Your task to perform on an android device: check the backup settings in the google photos Image 0: 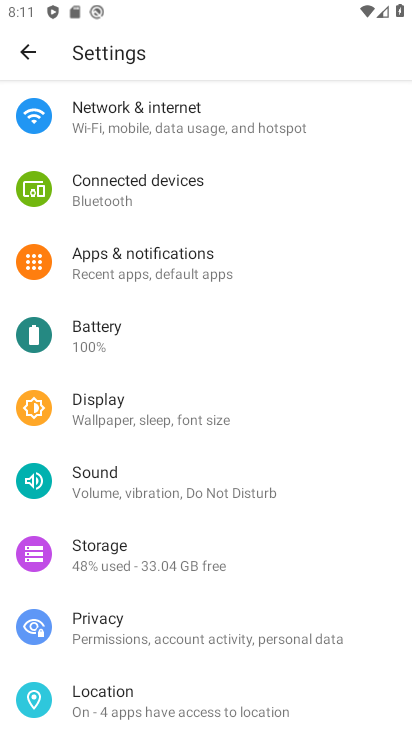
Step 0: press home button
Your task to perform on an android device: check the backup settings in the google photos Image 1: 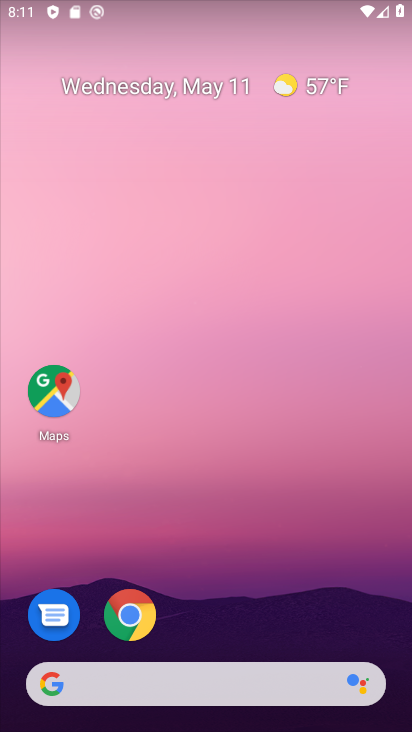
Step 1: drag from (342, 551) to (336, 78)
Your task to perform on an android device: check the backup settings in the google photos Image 2: 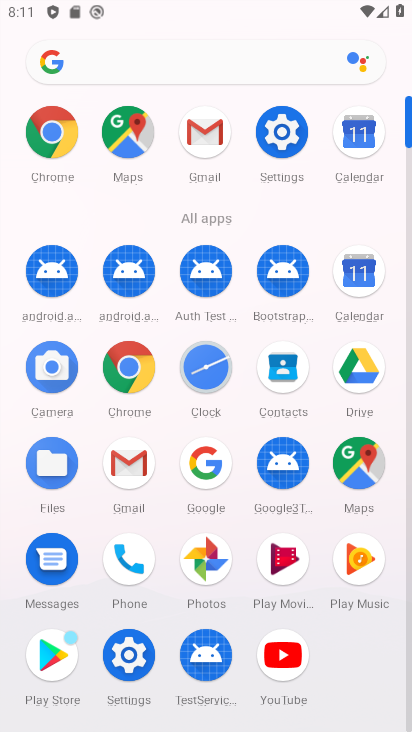
Step 2: click (186, 568)
Your task to perform on an android device: check the backup settings in the google photos Image 3: 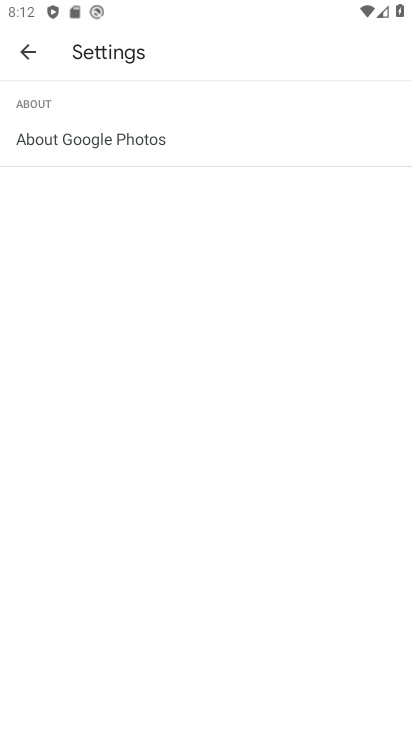
Step 3: press back button
Your task to perform on an android device: check the backup settings in the google photos Image 4: 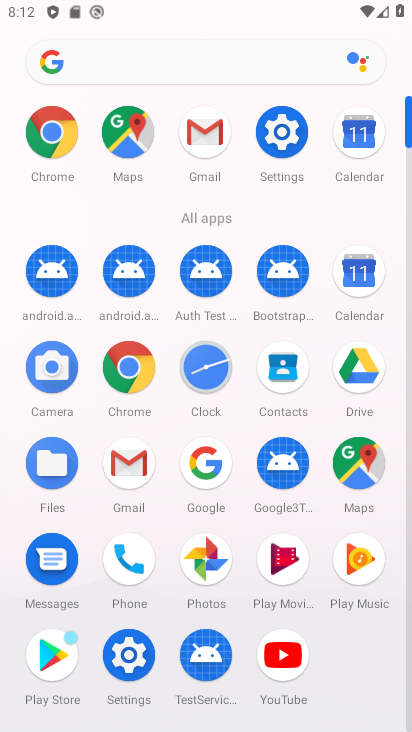
Step 4: click (216, 575)
Your task to perform on an android device: check the backup settings in the google photos Image 5: 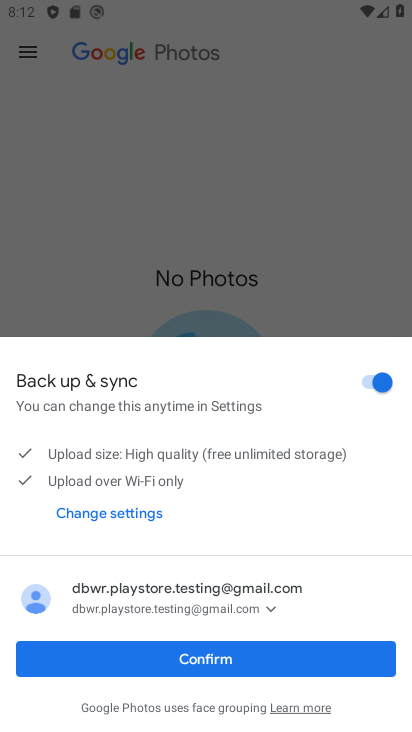
Step 5: click (214, 656)
Your task to perform on an android device: check the backup settings in the google photos Image 6: 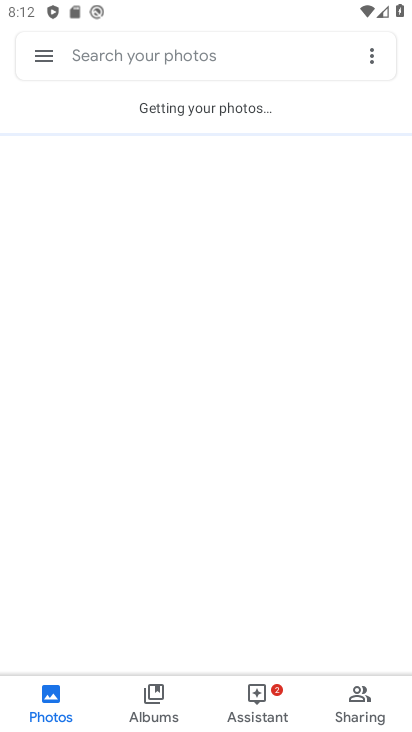
Step 6: click (45, 62)
Your task to perform on an android device: check the backup settings in the google photos Image 7: 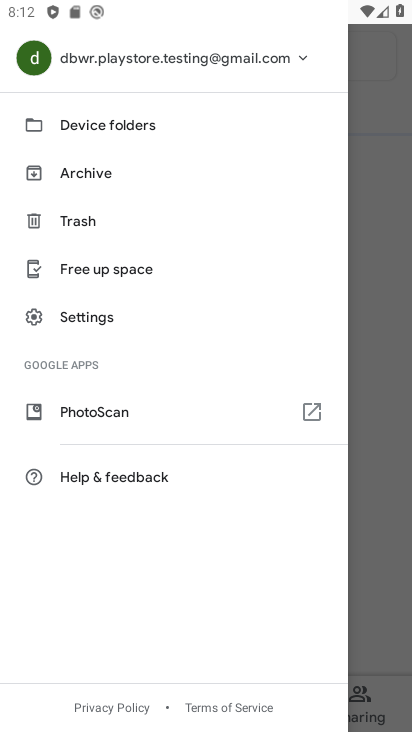
Step 7: click (106, 320)
Your task to perform on an android device: check the backup settings in the google photos Image 8: 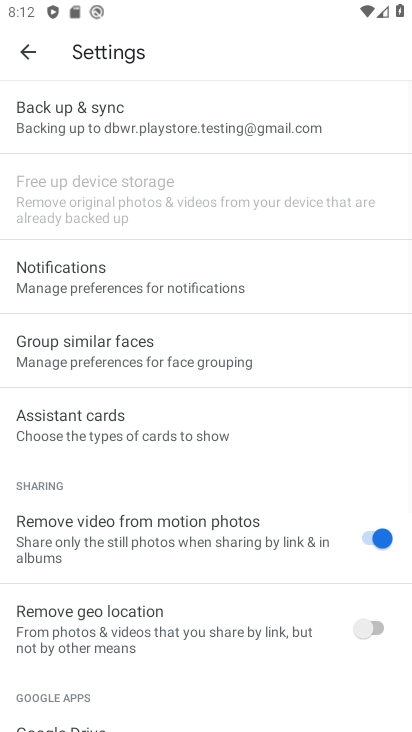
Step 8: click (125, 142)
Your task to perform on an android device: check the backup settings in the google photos Image 9: 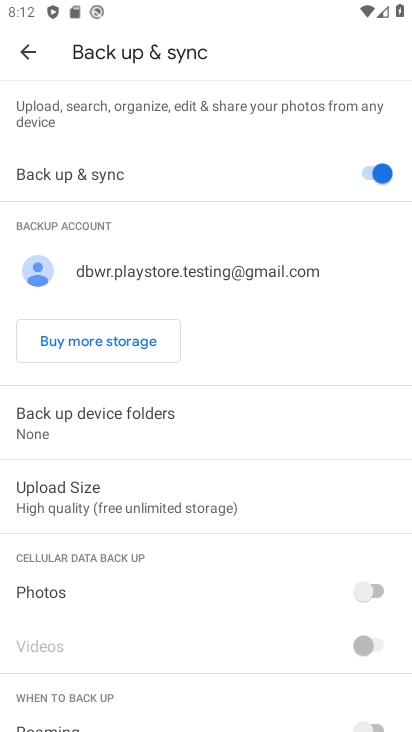
Step 9: task complete